Your task to perform on an android device: Go to network settings Image 0: 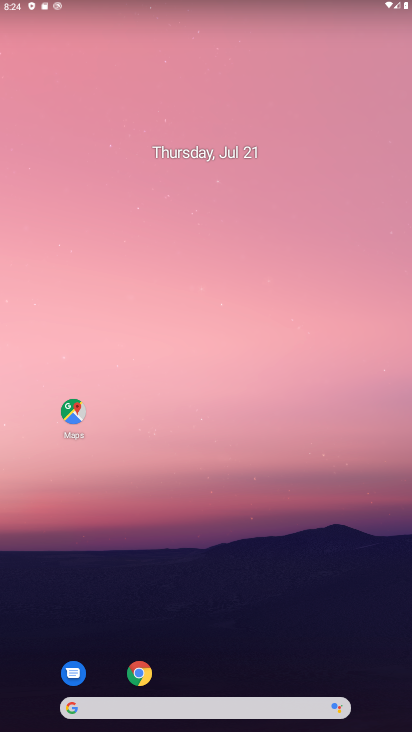
Step 0: drag from (226, 655) to (226, 21)
Your task to perform on an android device: Go to network settings Image 1: 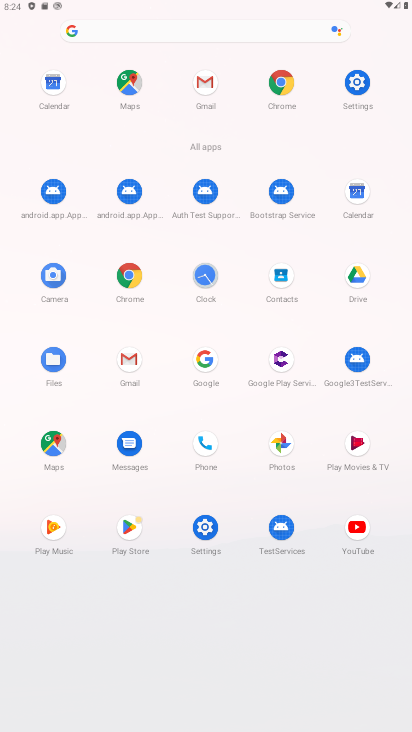
Step 1: click (352, 80)
Your task to perform on an android device: Go to network settings Image 2: 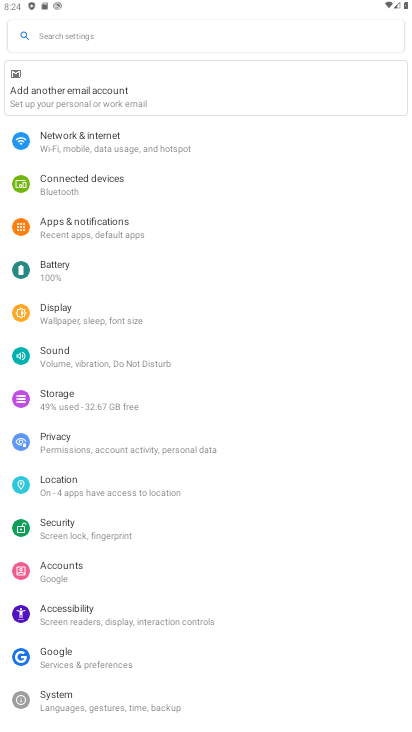
Step 2: click (76, 141)
Your task to perform on an android device: Go to network settings Image 3: 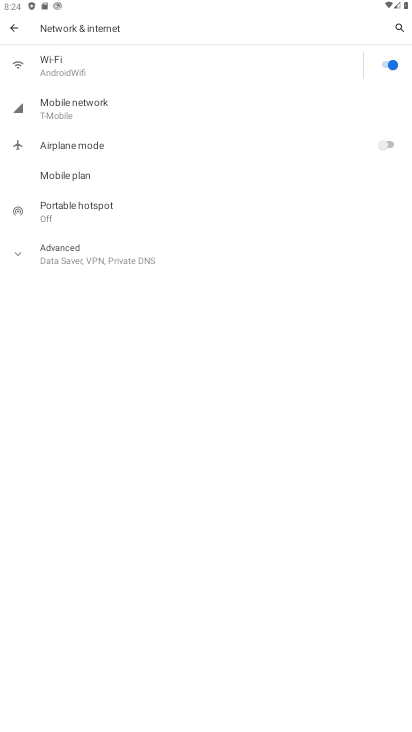
Step 3: click (71, 105)
Your task to perform on an android device: Go to network settings Image 4: 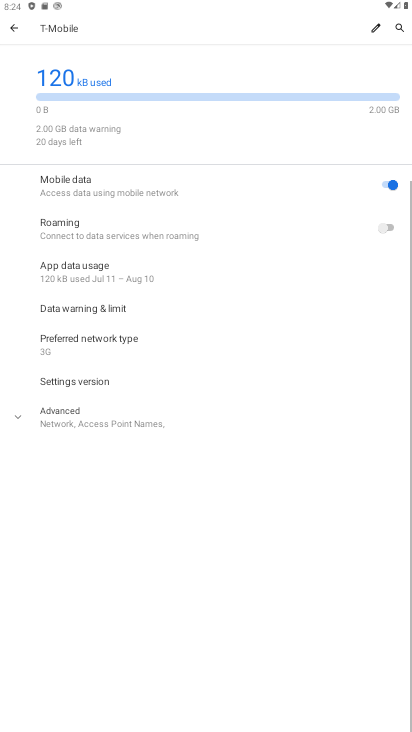
Step 4: task complete